Your task to perform on an android device: add a contact in the contacts app Image 0: 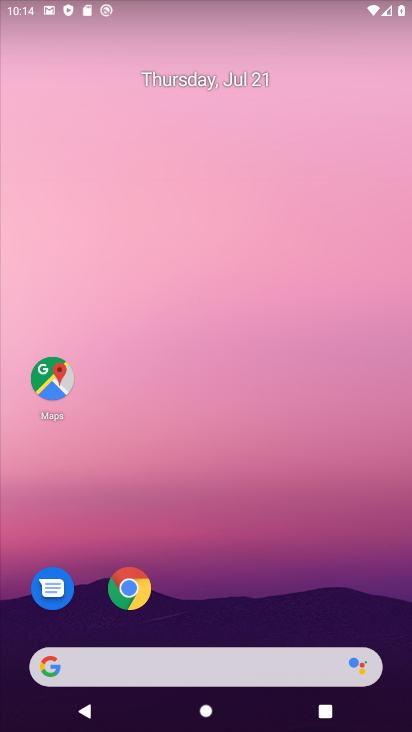
Step 0: drag from (189, 550) to (250, 59)
Your task to perform on an android device: add a contact in the contacts app Image 1: 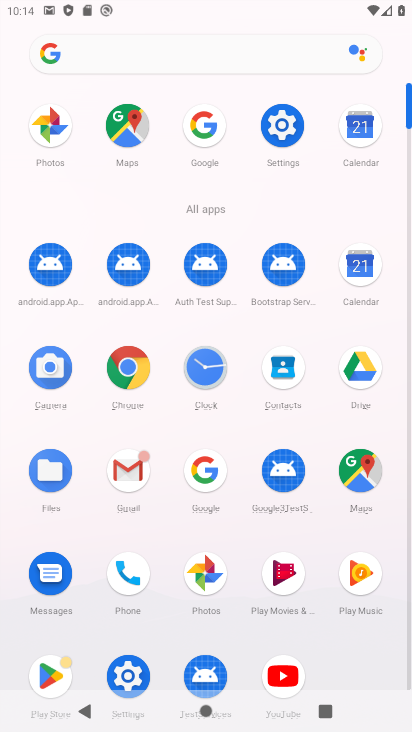
Step 1: click (270, 363)
Your task to perform on an android device: add a contact in the contacts app Image 2: 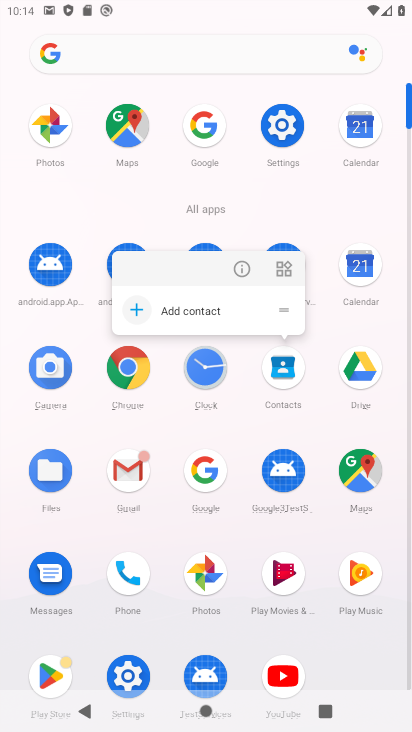
Step 2: click (245, 273)
Your task to perform on an android device: add a contact in the contacts app Image 3: 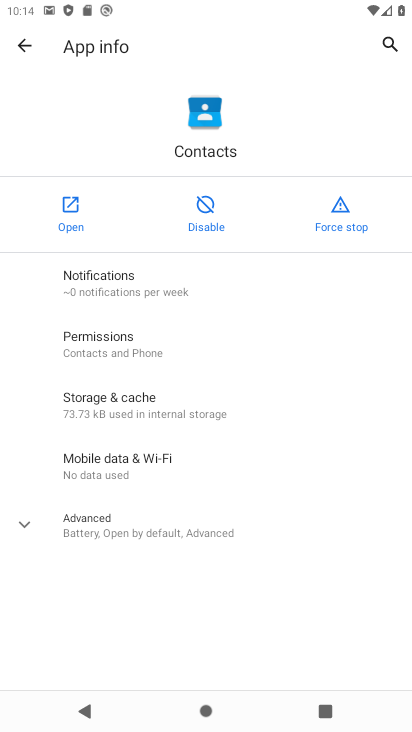
Step 3: click (75, 206)
Your task to perform on an android device: add a contact in the contacts app Image 4: 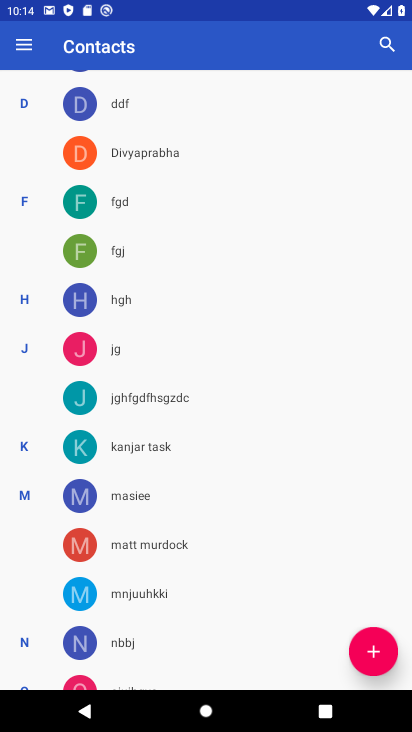
Step 4: click (362, 651)
Your task to perform on an android device: add a contact in the contacts app Image 5: 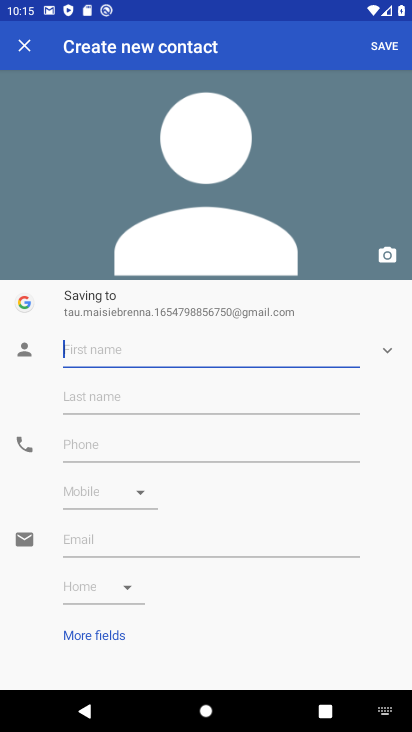
Step 5: click (117, 358)
Your task to perform on an android device: add a contact in the contacts app Image 6: 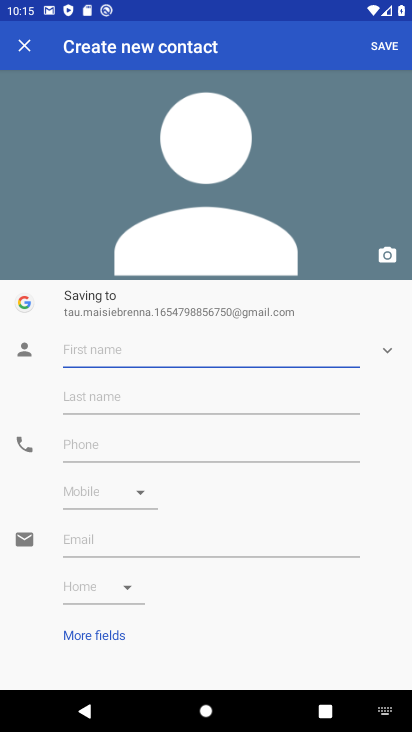
Step 6: type "majkzma"
Your task to perform on an android device: add a contact in the contacts app Image 7: 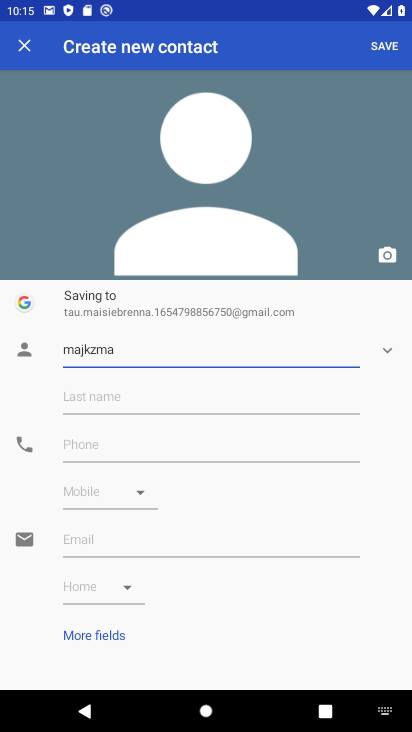
Step 7: click (86, 451)
Your task to perform on an android device: add a contact in the contacts app Image 8: 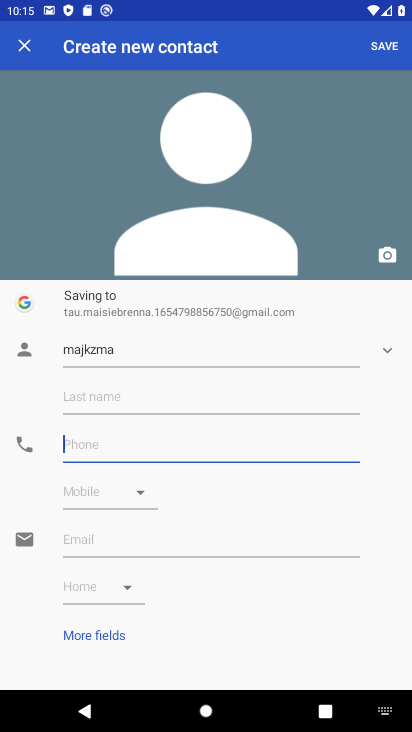
Step 8: type "9896908"
Your task to perform on an android device: add a contact in the contacts app Image 9: 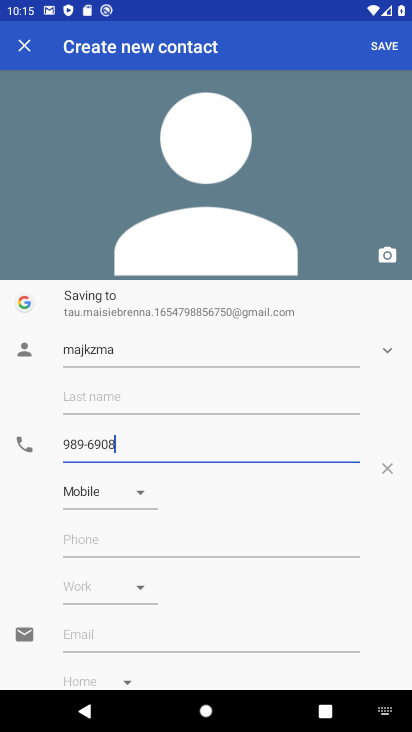
Step 9: click (384, 46)
Your task to perform on an android device: add a contact in the contacts app Image 10: 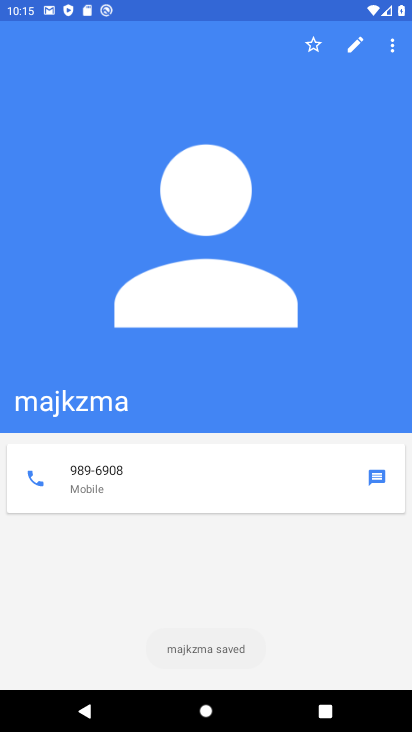
Step 10: task complete